Your task to perform on an android device: toggle data saver in the chrome app Image 0: 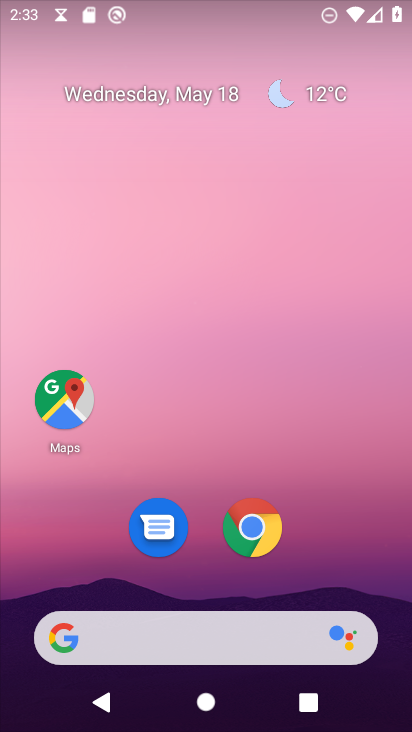
Step 0: click (270, 534)
Your task to perform on an android device: toggle data saver in the chrome app Image 1: 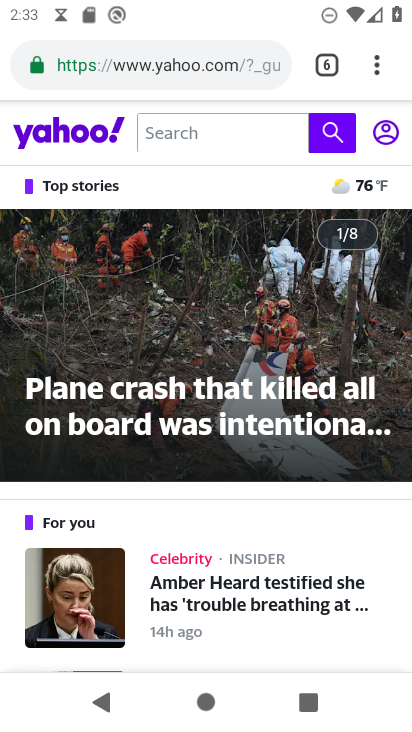
Step 1: click (377, 70)
Your task to perform on an android device: toggle data saver in the chrome app Image 2: 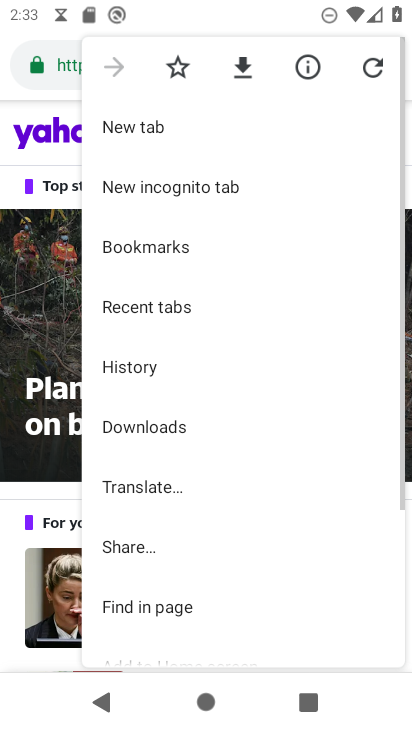
Step 2: drag from (188, 379) to (161, 177)
Your task to perform on an android device: toggle data saver in the chrome app Image 3: 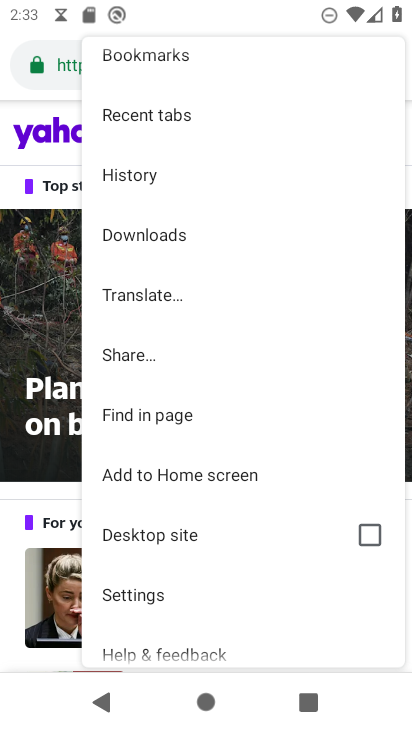
Step 3: click (169, 585)
Your task to perform on an android device: toggle data saver in the chrome app Image 4: 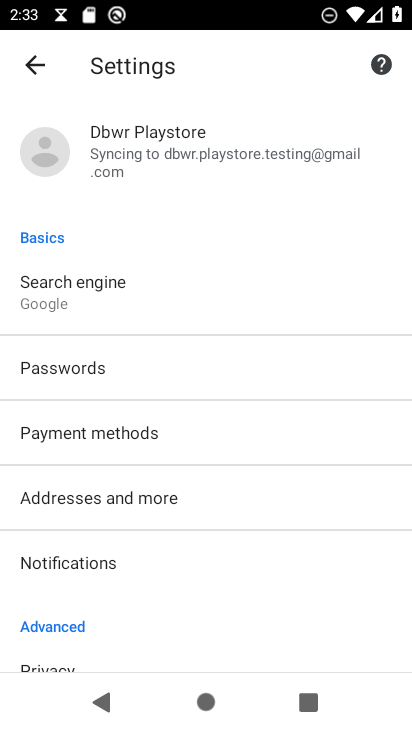
Step 4: drag from (191, 574) to (207, 222)
Your task to perform on an android device: toggle data saver in the chrome app Image 5: 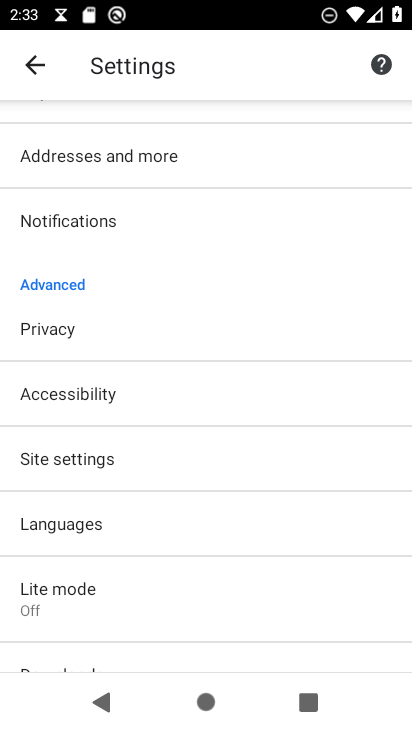
Step 5: click (99, 590)
Your task to perform on an android device: toggle data saver in the chrome app Image 6: 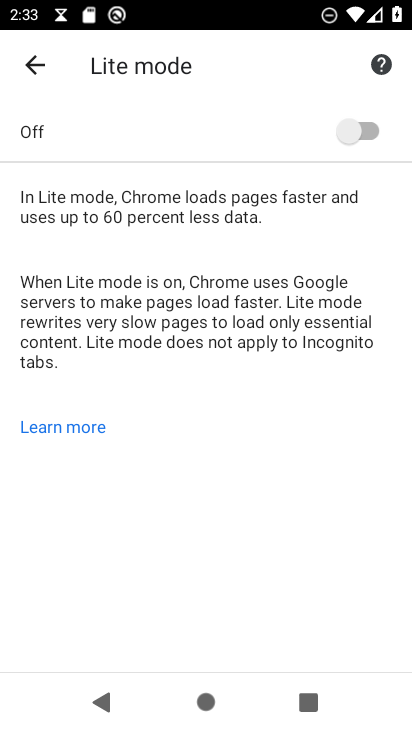
Step 6: click (375, 121)
Your task to perform on an android device: toggle data saver in the chrome app Image 7: 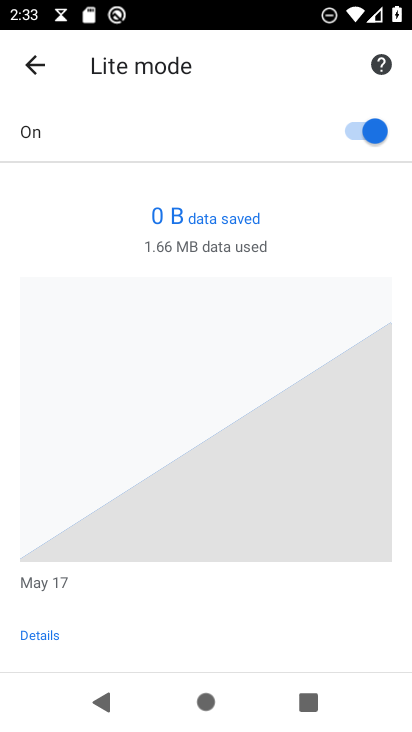
Step 7: task complete